Your task to perform on an android device: install app "Etsy: Buy & Sell Unique Items" Image 0: 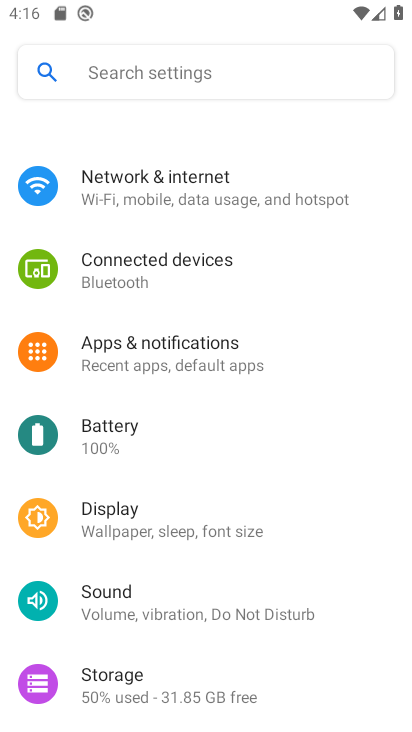
Step 0: press home button
Your task to perform on an android device: install app "Etsy: Buy & Sell Unique Items" Image 1: 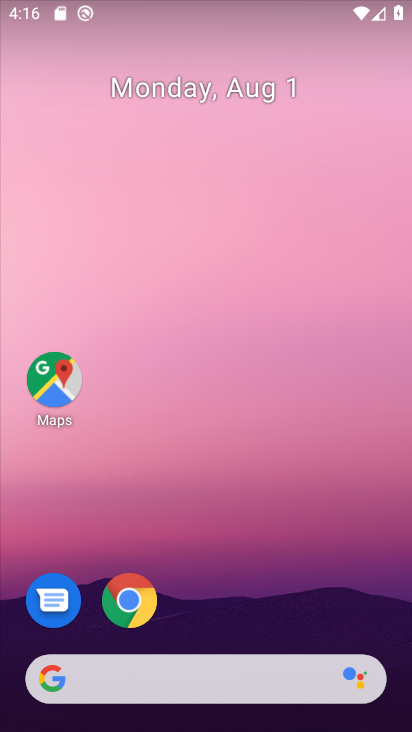
Step 1: drag from (310, 569) to (226, 0)
Your task to perform on an android device: install app "Etsy: Buy & Sell Unique Items" Image 2: 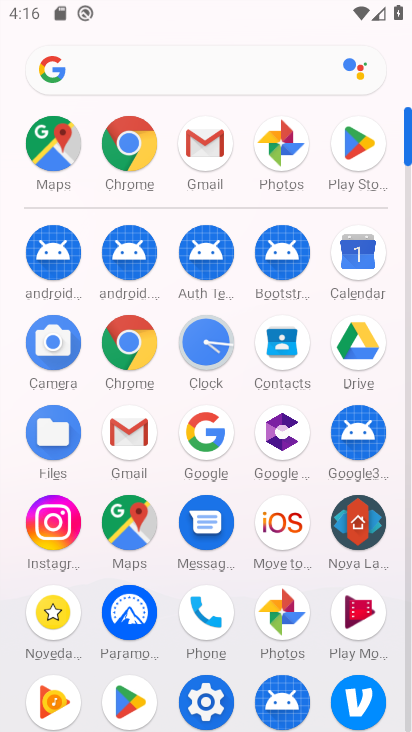
Step 2: click (362, 144)
Your task to perform on an android device: install app "Etsy: Buy & Sell Unique Items" Image 3: 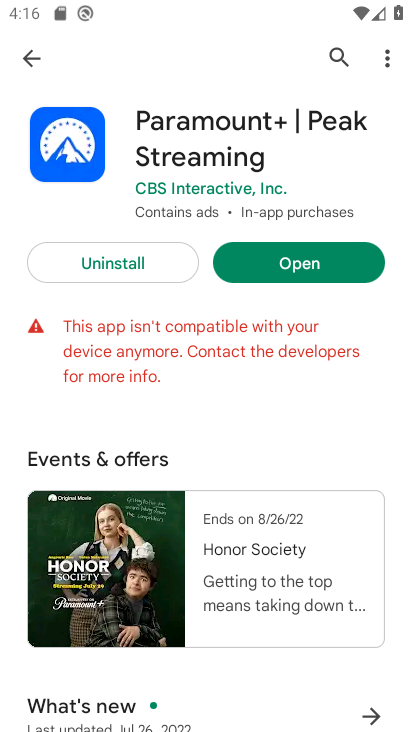
Step 3: click (349, 52)
Your task to perform on an android device: install app "Etsy: Buy & Sell Unique Items" Image 4: 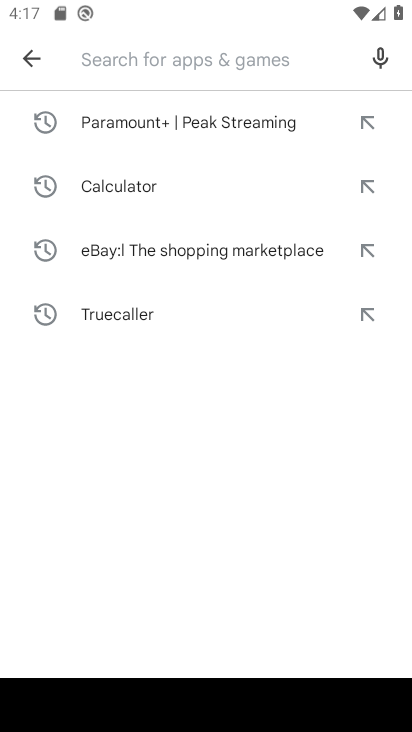
Step 4: type "Etsy: Buy & Sell Unique Items"
Your task to perform on an android device: install app "Etsy: Buy & Sell Unique Items" Image 5: 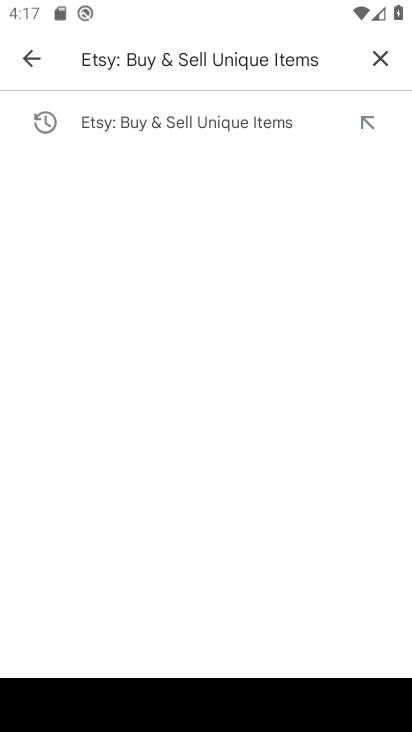
Step 5: press enter
Your task to perform on an android device: install app "Etsy: Buy & Sell Unique Items" Image 6: 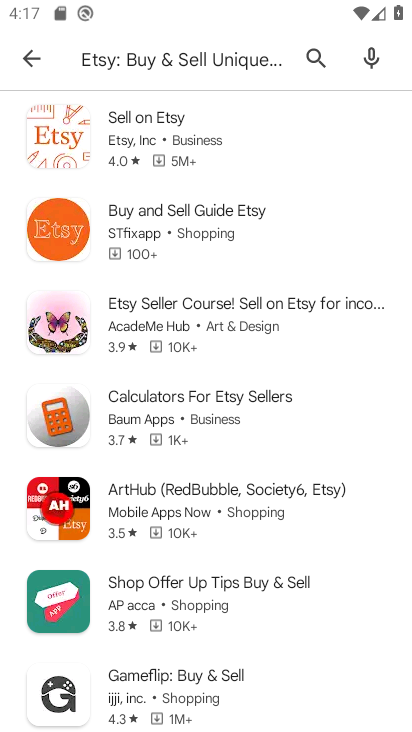
Step 6: click (88, 106)
Your task to perform on an android device: install app "Etsy: Buy & Sell Unique Items" Image 7: 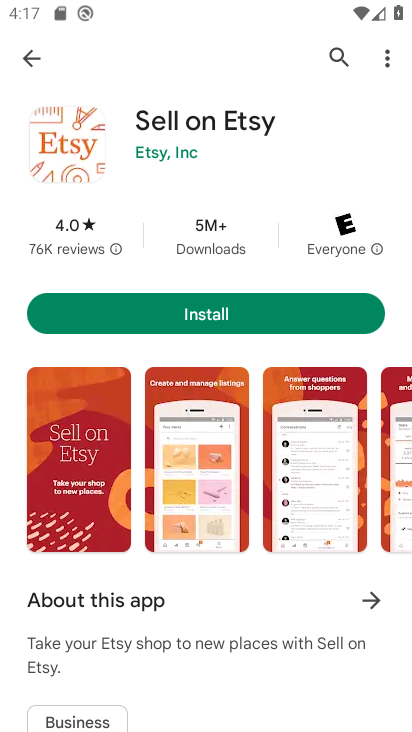
Step 7: task complete